Your task to perform on an android device: turn off javascript in the chrome app Image 0: 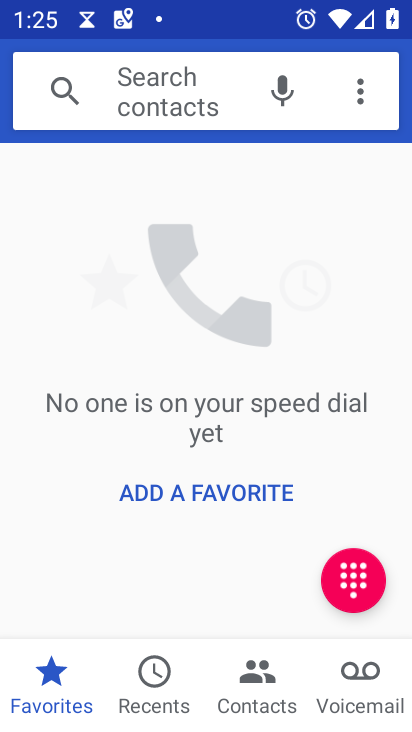
Step 0: press home button
Your task to perform on an android device: turn off javascript in the chrome app Image 1: 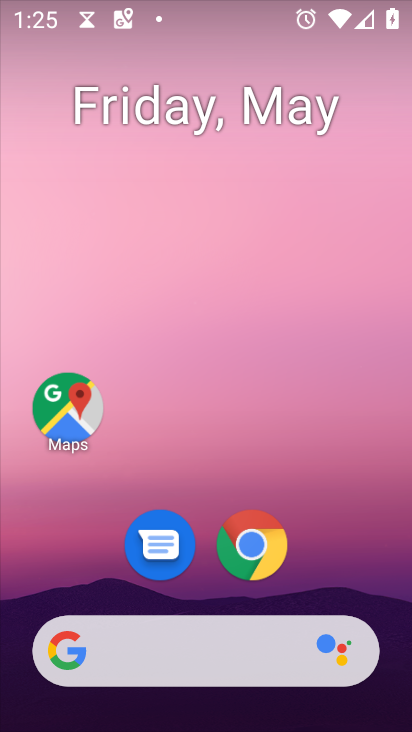
Step 1: click (260, 554)
Your task to perform on an android device: turn off javascript in the chrome app Image 2: 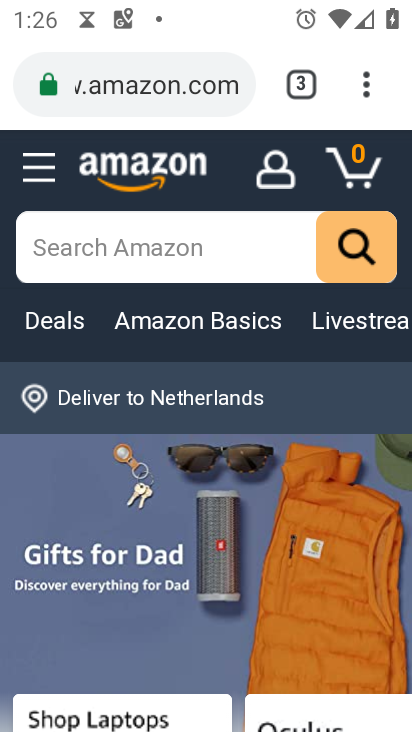
Step 2: click (376, 82)
Your task to perform on an android device: turn off javascript in the chrome app Image 3: 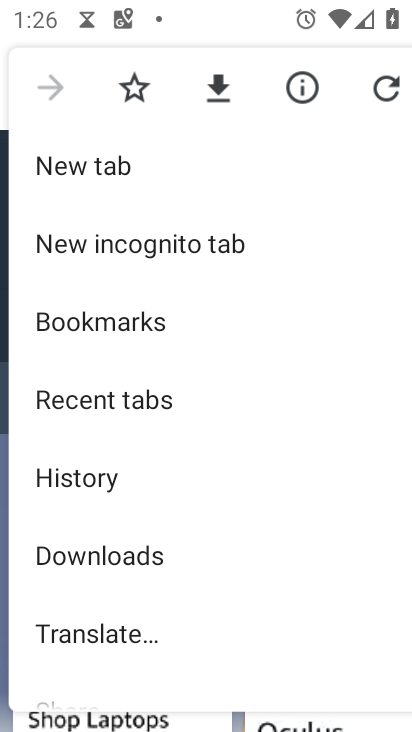
Step 3: drag from (261, 616) to (243, 264)
Your task to perform on an android device: turn off javascript in the chrome app Image 4: 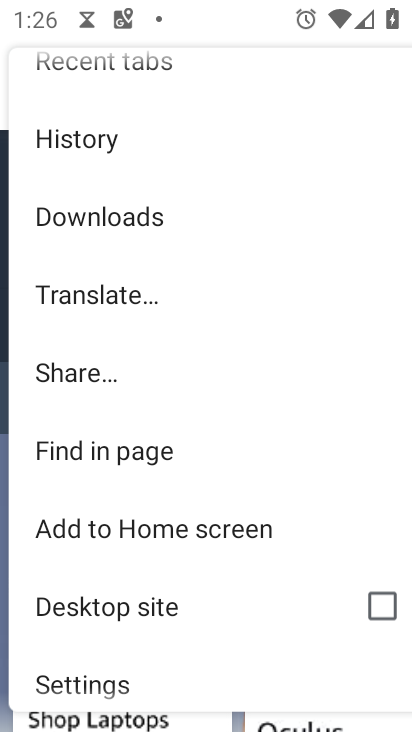
Step 4: click (95, 679)
Your task to perform on an android device: turn off javascript in the chrome app Image 5: 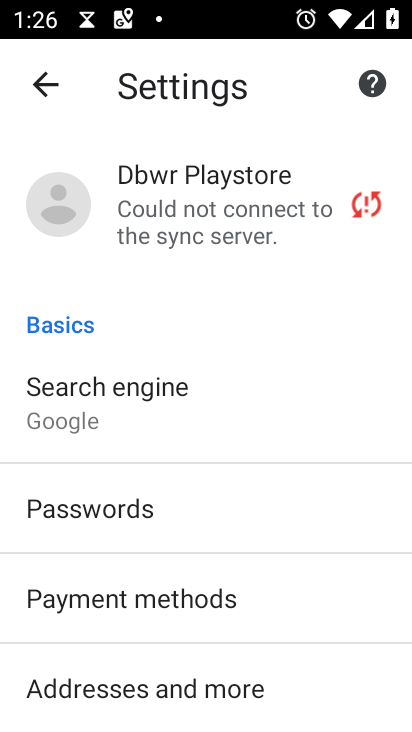
Step 5: drag from (237, 654) to (248, 240)
Your task to perform on an android device: turn off javascript in the chrome app Image 6: 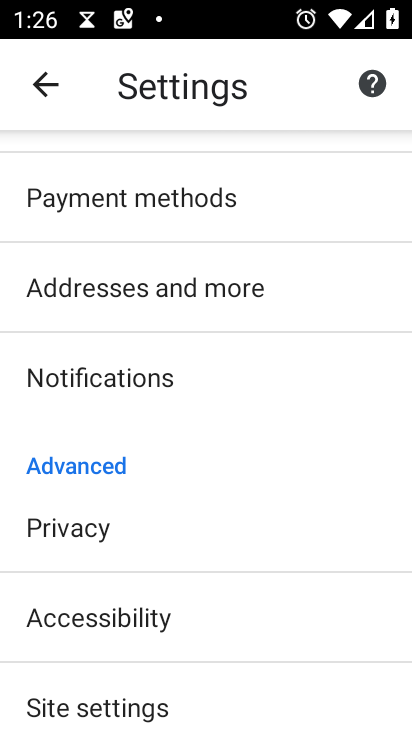
Step 6: click (124, 703)
Your task to perform on an android device: turn off javascript in the chrome app Image 7: 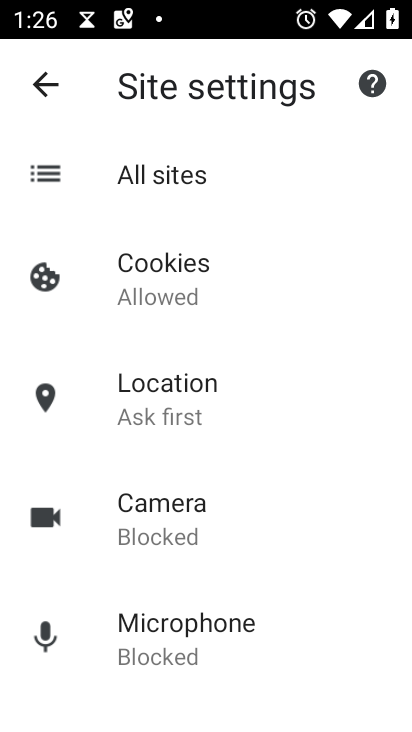
Step 7: drag from (289, 629) to (280, 244)
Your task to perform on an android device: turn off javascript in the chrome app Image 8: 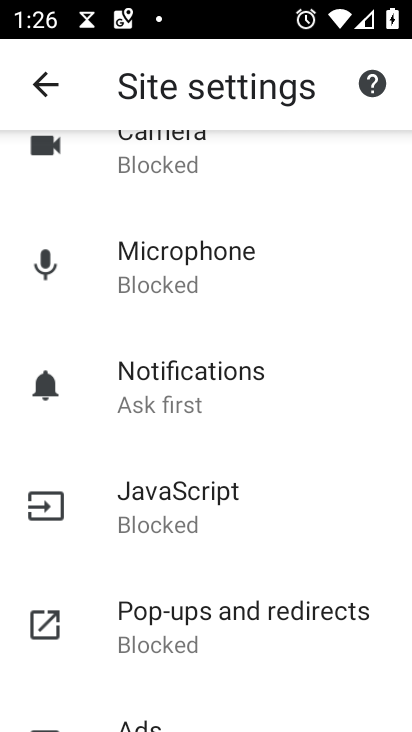
Step 8: click (194, 514)
Your task to perform on an android device: turn off javascript in the chrome app Image 9: 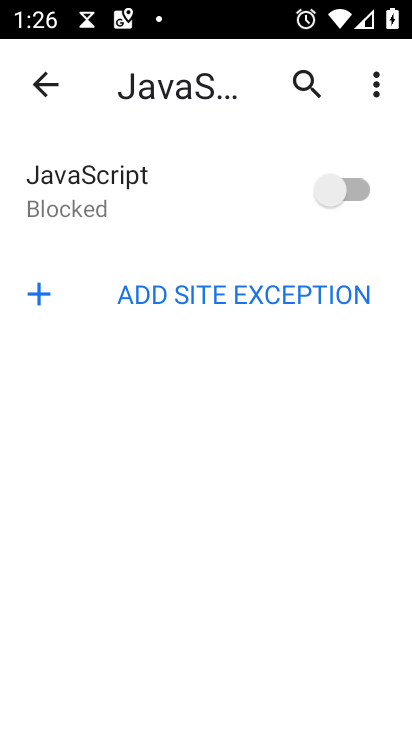
Step 9: task complete